Your task to perform on an android device: change the clock style Image 0: 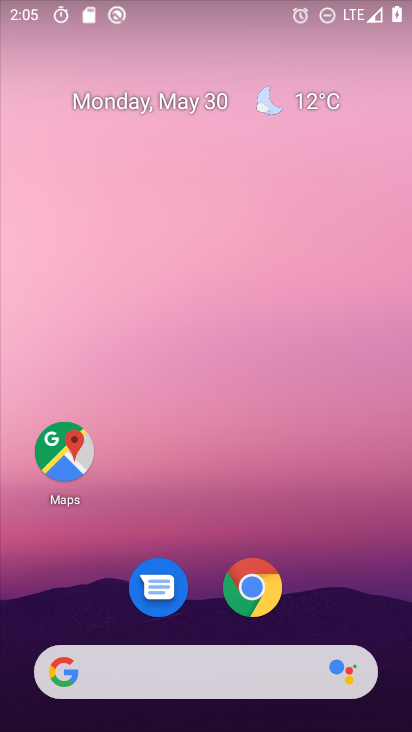
Step 0: drag from (357, 530) to (245, 129)
Your task to perform on an android device: change the clock style Image 1: 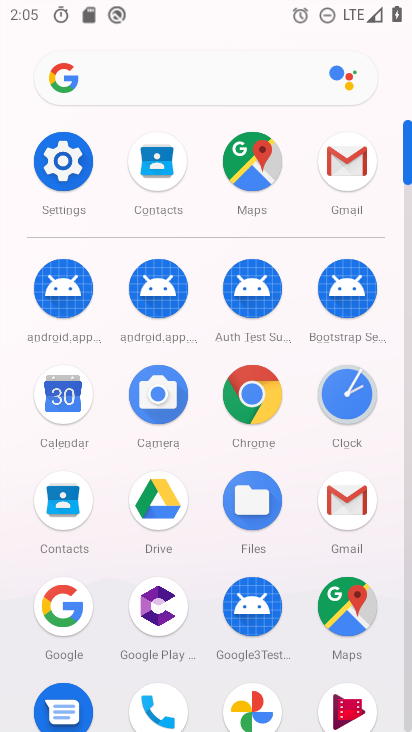
Step 1: click (343, 403)
Your task to perform on an android device: change the clock style Image 2: 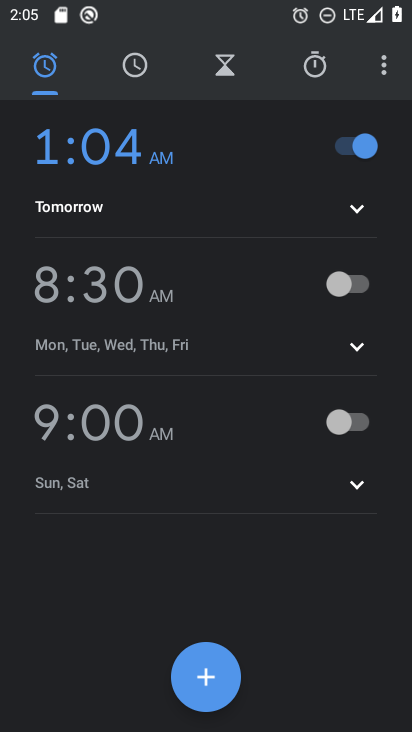
Step 2: drag from (383, 67) to (238, 131)
Your task to perform on an android device: change the clock style Image 3: 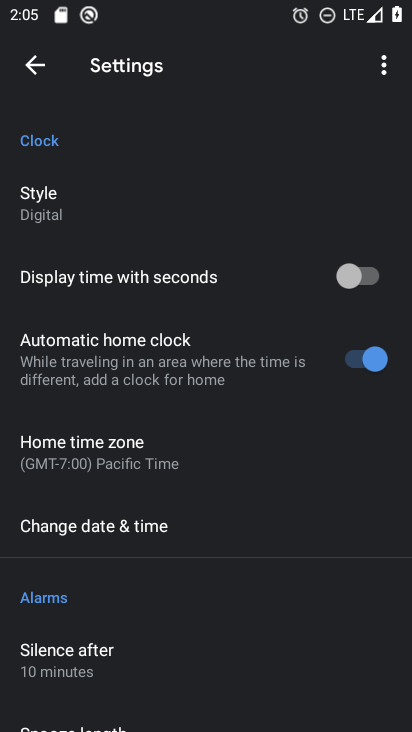
Step 3: click (92, 205)
Your task to perform on an android device: change the clock style Image 4: 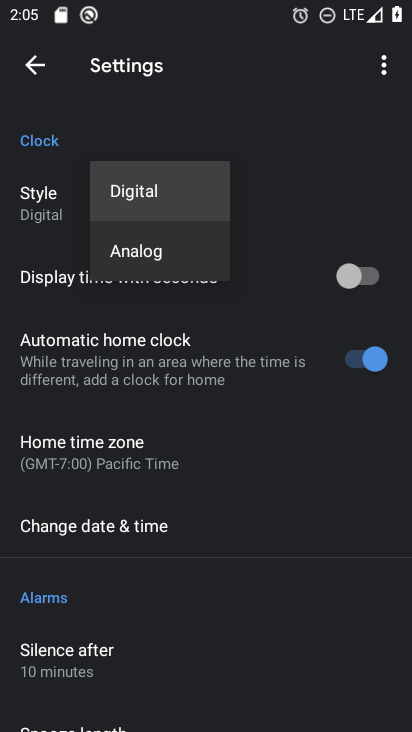
Step 4: click (155, 250)
Your task to perform on an android device: change the clock style Image 5: 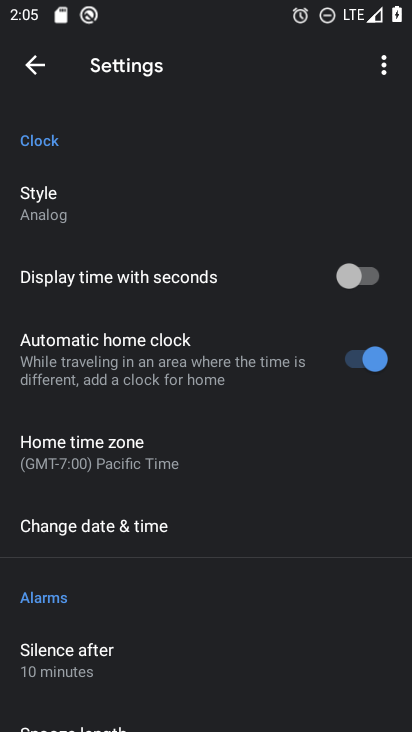
Step 5: task complete